Your task to perform on an android device: toggle location history Image 0: 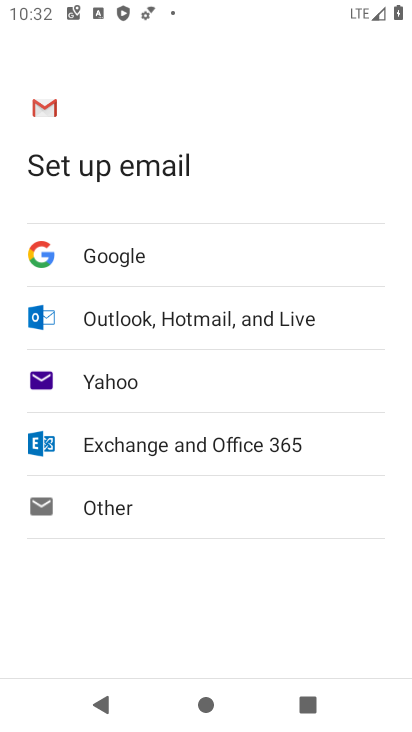
Step 0: press home button
Your task to perform on an android device: toggle location history Image 1: 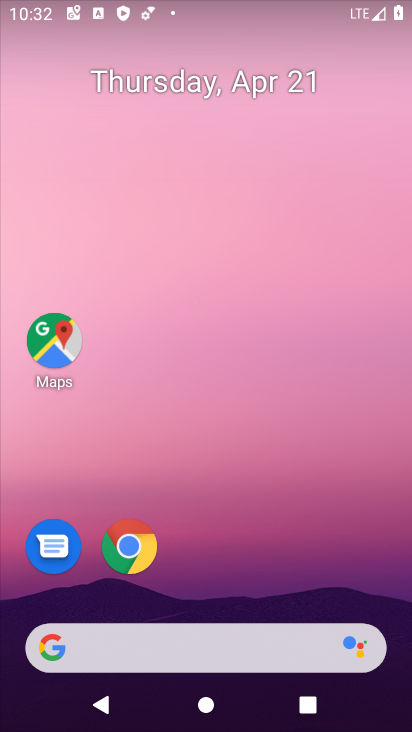
Step 1: click (52, 340)
Your task to perform on an android device: toggle location history Image 2: 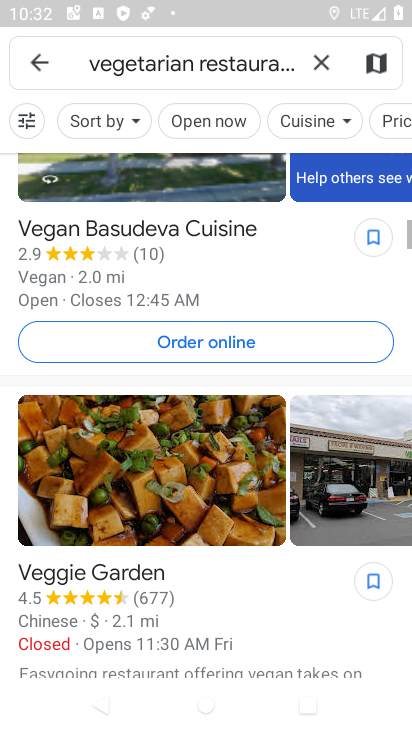
Step 2: press back button
Your task to perform on an android device: toggle location history Image 3: 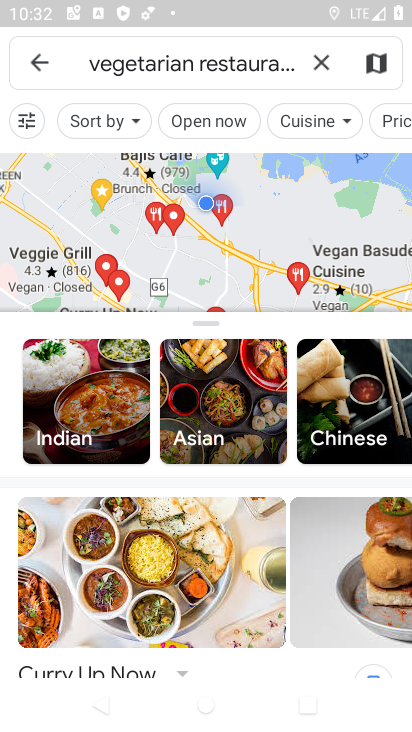
Step 3: press back button
Your task to perform on an android device: toggle location history Image 4: 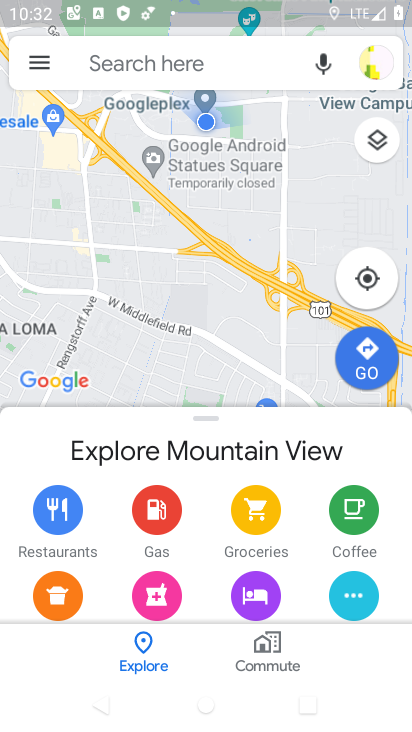
Step 4: click (36, 62)
Your task to perform on an android device: toggle location history Image 5: 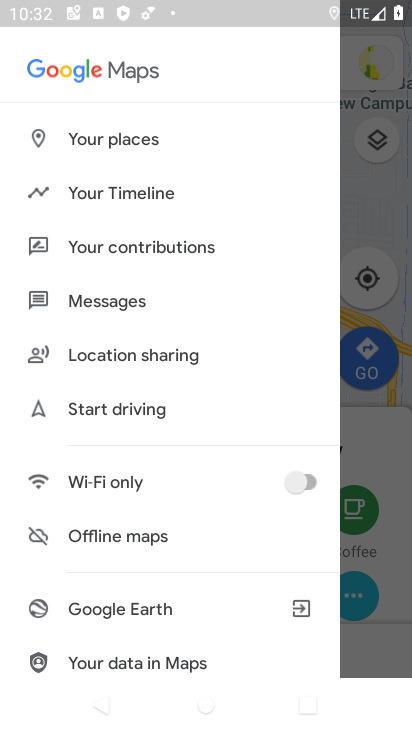
Step 5: drag from (238, 628) to (265, 245)
Your task to perform on an android device: toggle location history Image 6: 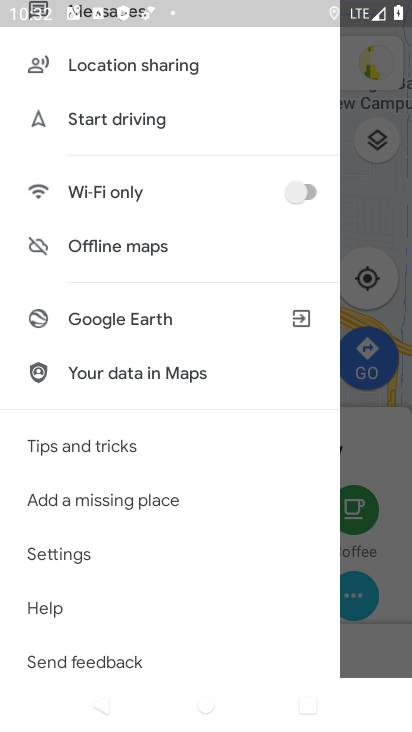
Step 6: click (43, 557)
Your task to perform on an android device: toggle location history Image 7: 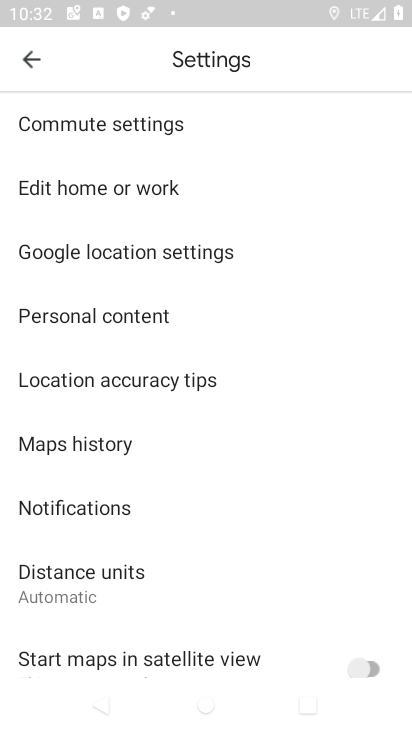
Step 7: click (70, 312)
Your task to perform on an android device: toggle location history Image 8: 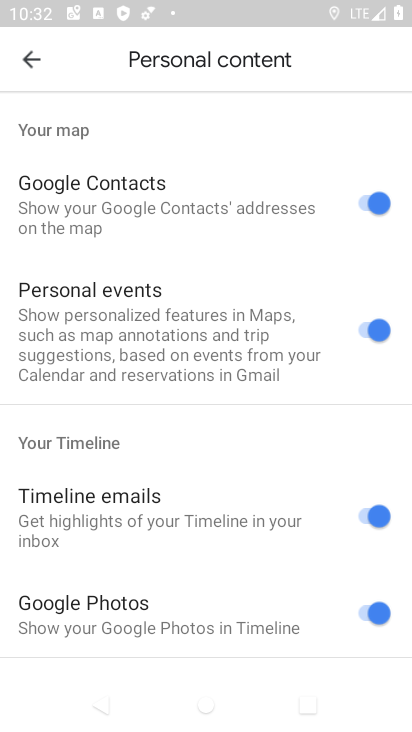
Step 8: drag from (254, 596) to (274, 225)
Your task to perform on an android device: toggle location history Image 9: 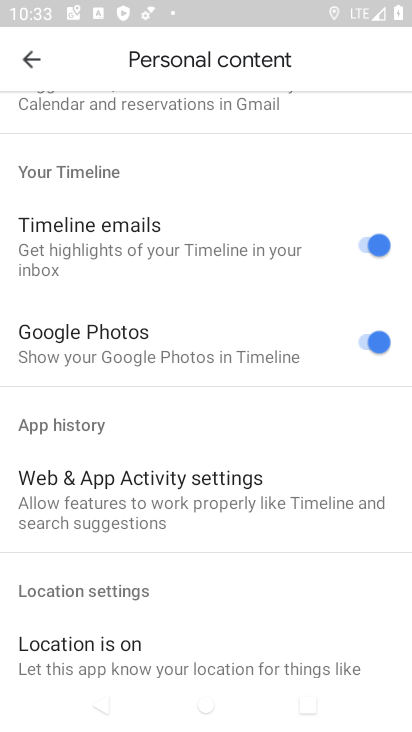
Step 9: drag from (282, 591) to (324, 244)
Your task to perform on an android device: toggle location history Image 10: 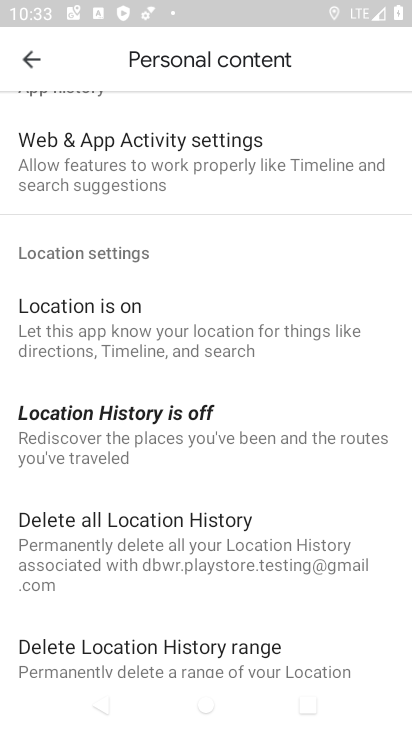
Step 10: click (92, 414)
Your task to perform on an android device: toggle location history Image 11: 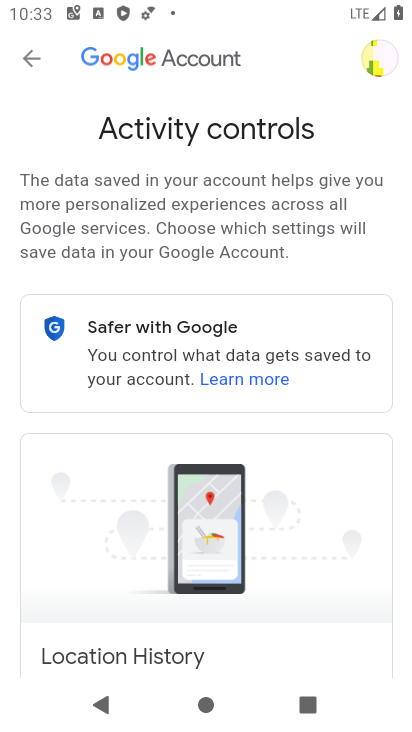
Step 11: drag from (321, 605) to (333, 246)
Your task to perform on an android device: toggle location history Image 12: 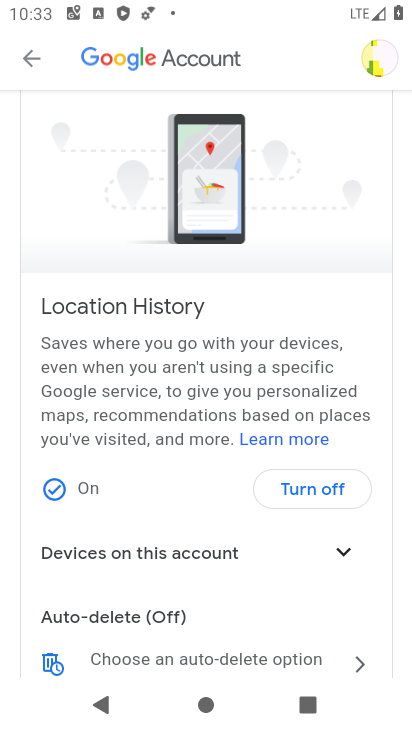
Step 12: click (311, 489)
Your task to perform on an android device: toggle location history Image 13: 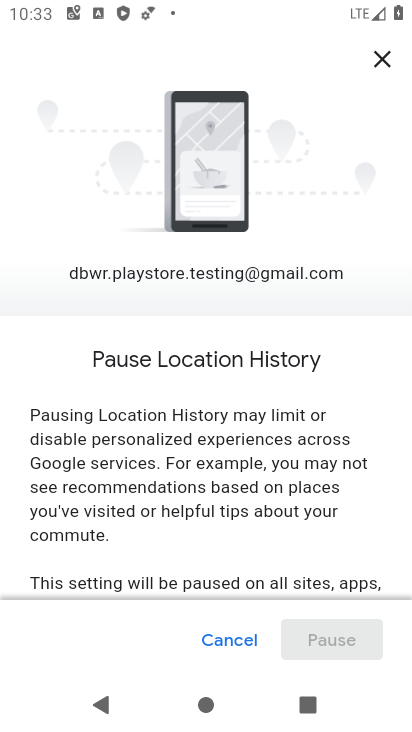
Step 13: drag from (273, 561) to (301, 105)
Your task to perform on an android device: toggle location history Image 14: 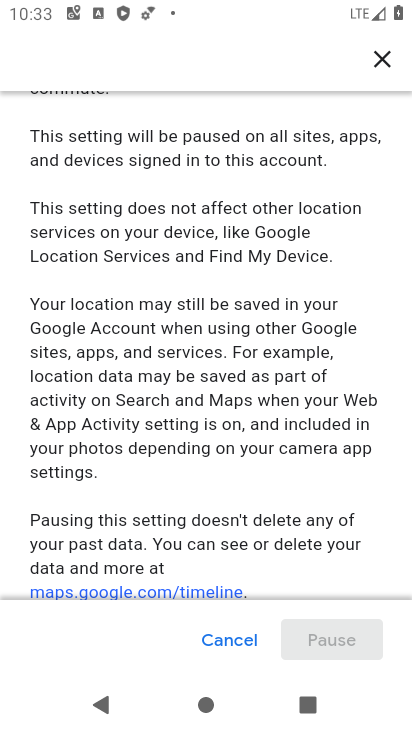
Step 14: drag from (256, 545) to (270, 96)
Your task to perform on an android device: toggle location history Image 15: 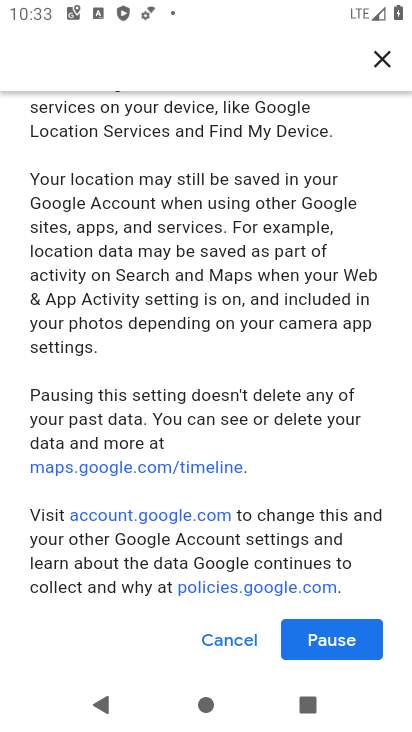
Step 15: click (323, 648)
Your task to perform on an android device: toggle location history Image 16: 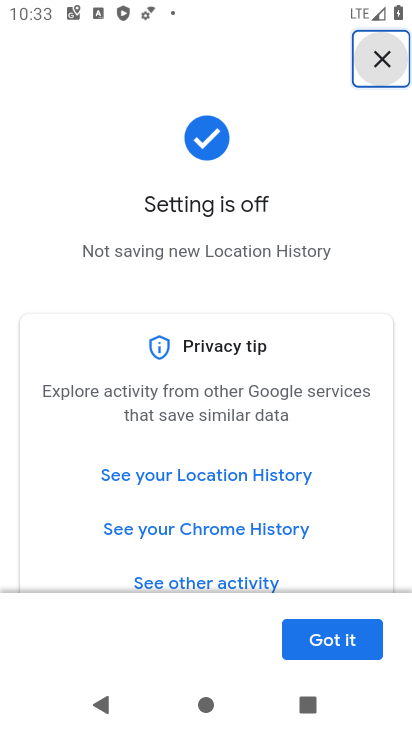
Step 16: click (337, 636)
Your task to perform on an android device: toggle location history Image 17: 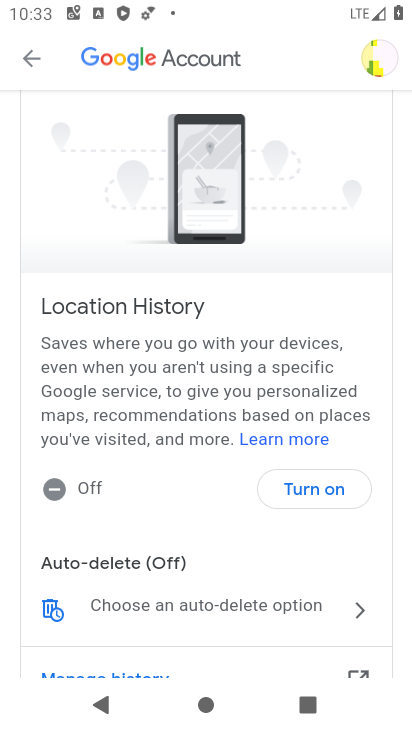
Step 17: task complete